Your task to perform on an android device: Open Google Maps and go to "Timeline" Image 0: 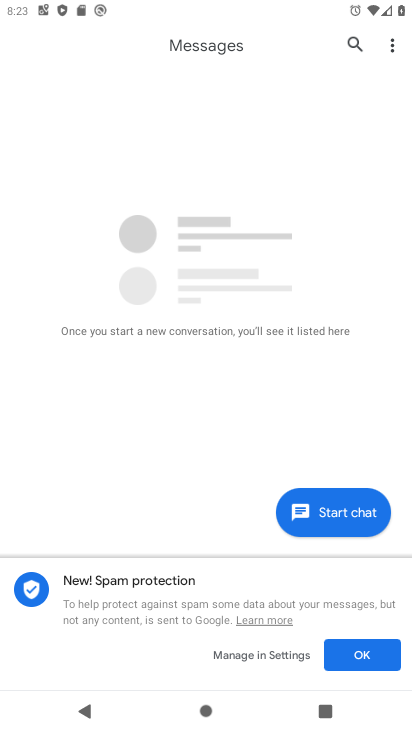
Step 0: press home button
Your task to perform on an android device: Open Google Maps and go to "Timeline" Image 1: 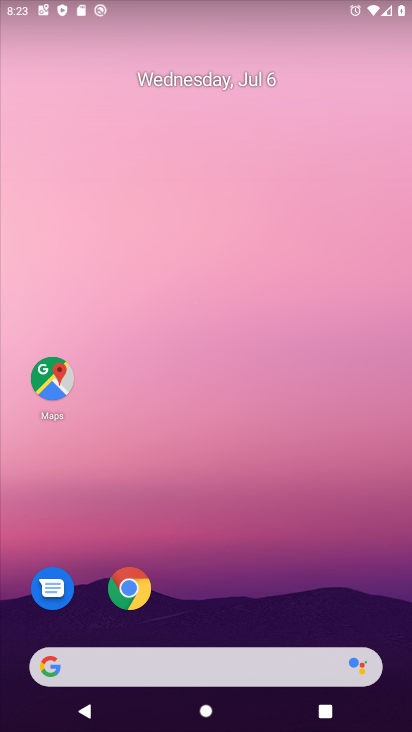
Step 1: drag from (215, 611) to (231, 224)
Your task to perform on an android device: Open Google Maps and go to "Timeline" Image 2: 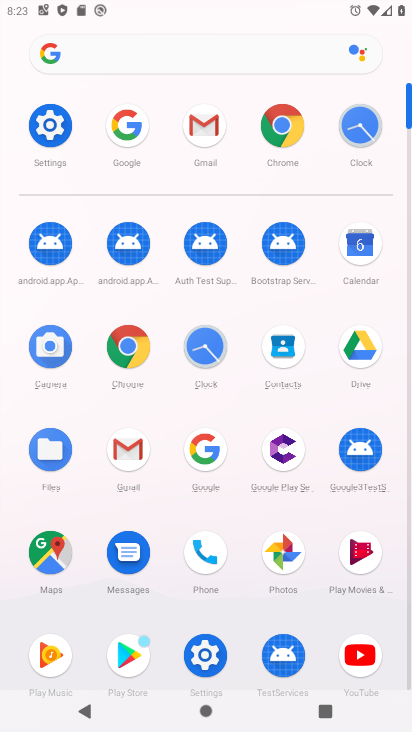
Step 2: click (60, 546)
Your task to perform on an android device: Open Google Maps and go to "Timeline" Image 3: 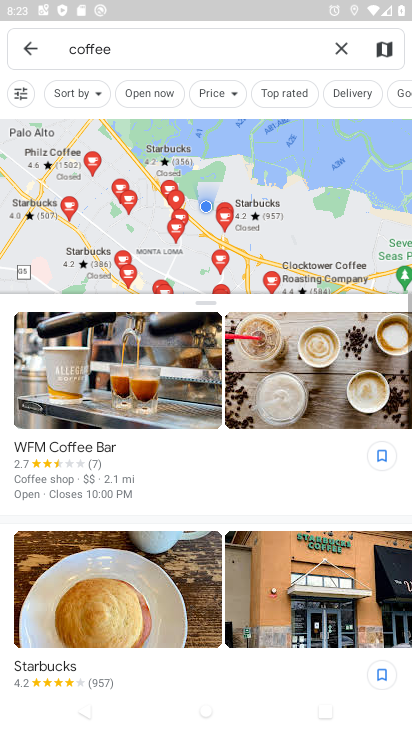
Step 3: click (340, 42)
Your task to perform on an android device: Open Google Maps and go to "Timeline" Image 4: 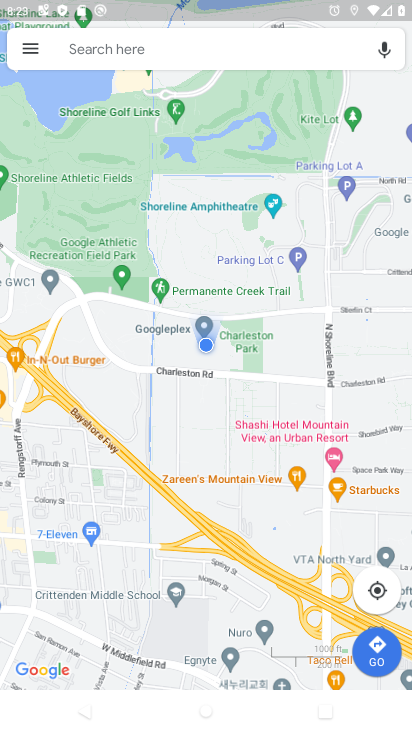
Step 4: click (26, 51)
Your task to perform on an android device: Open Google Maps and go to "Timeline" Image 5: 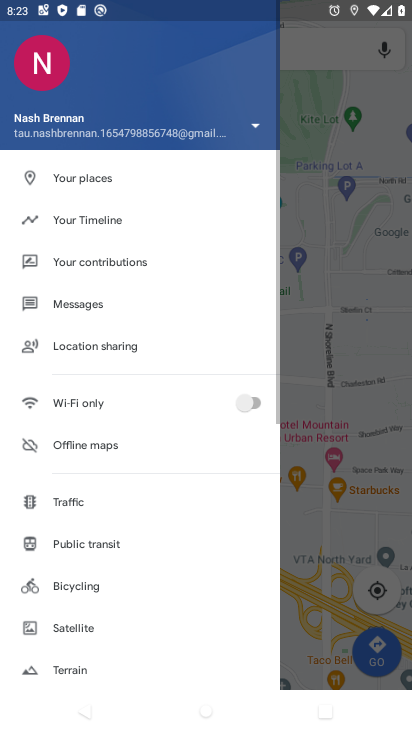
Step 5: click (106, 220)
Your task to perform on an android device: Open Google Maps and go to "Timeline" Image 6: 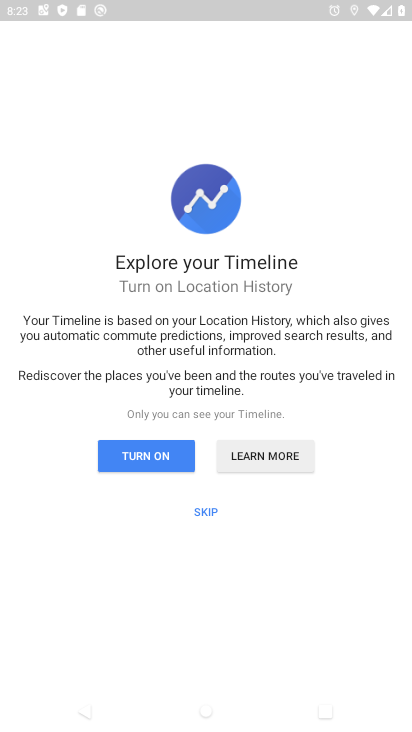
Step 6: click (211, 499)
Your task to perform on an android device: Open Google Maps and go to "Timeline" Image 7: 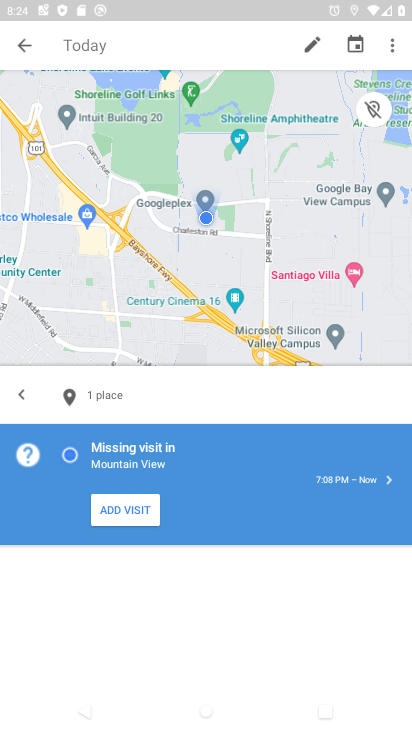
Step 7: task complete